Your task to perform on an android device: toggle improve location accuracy Image 0: 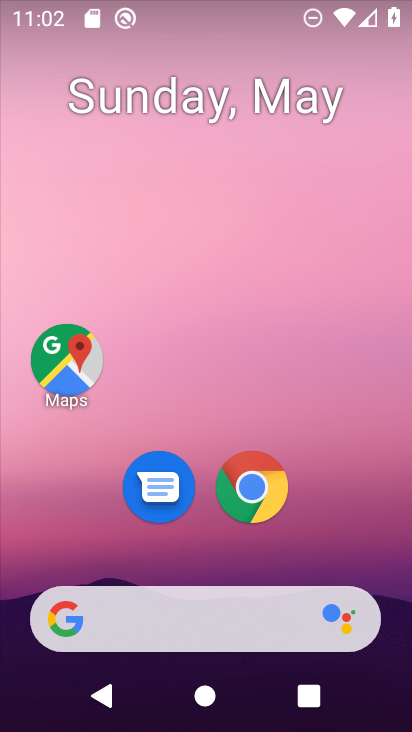
Step 0: drag from (396, 540) to (270, 55)
Your task to perform on an android device: toggle improve location accuracy Image 1: 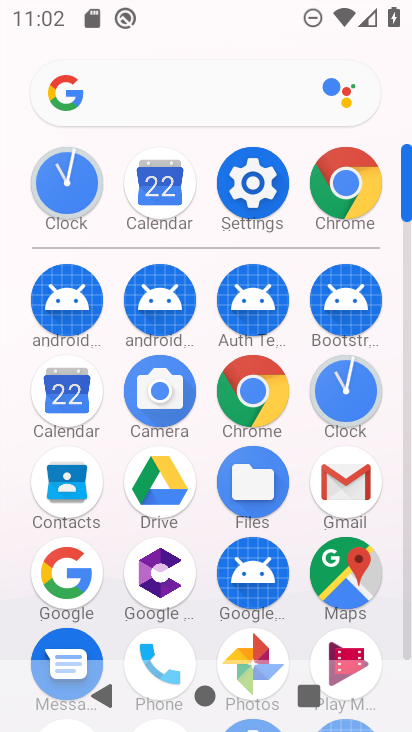
Step 1: click (406, 653)
Your task to perform on an android device: toggle improve location accuracy Image 2: 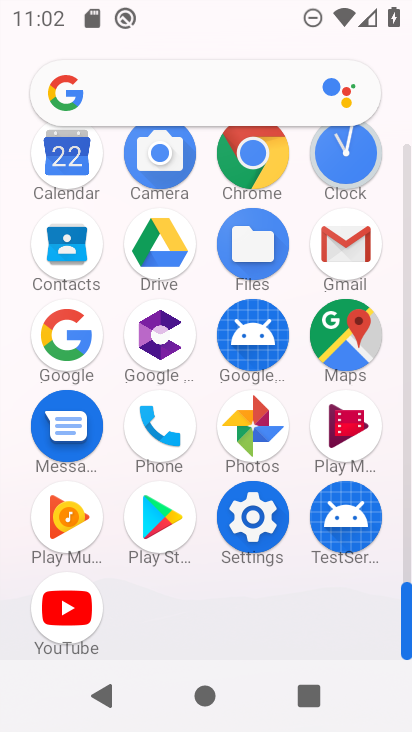
Step 2: click (263, 525)
Your task to perform on an android device: toggle improve location accuracy Image 3: 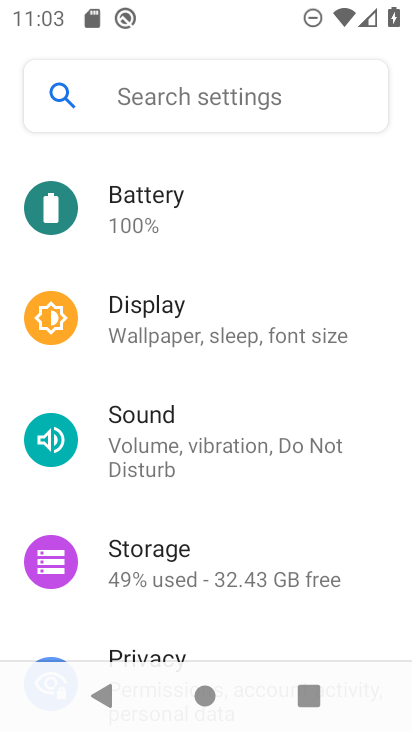
Step 3: drag from (305, 637) to (237, 174)
Your task to perform on an android device: toggle improve location accuracy Image 4: 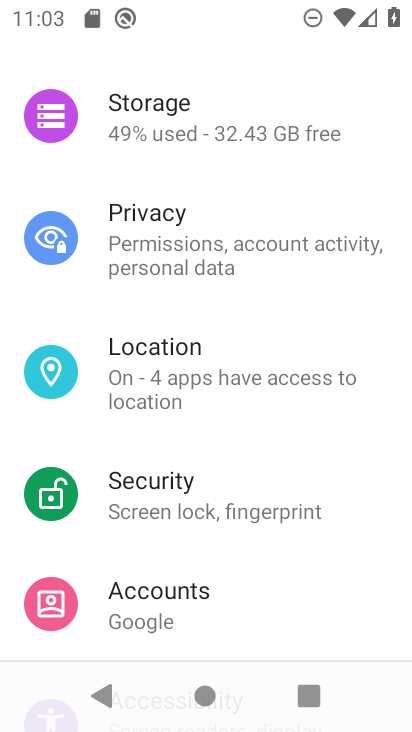
Step 4: click (267, 372)
Your task to perform on an android device: toggle improve location accuracy Image 5: 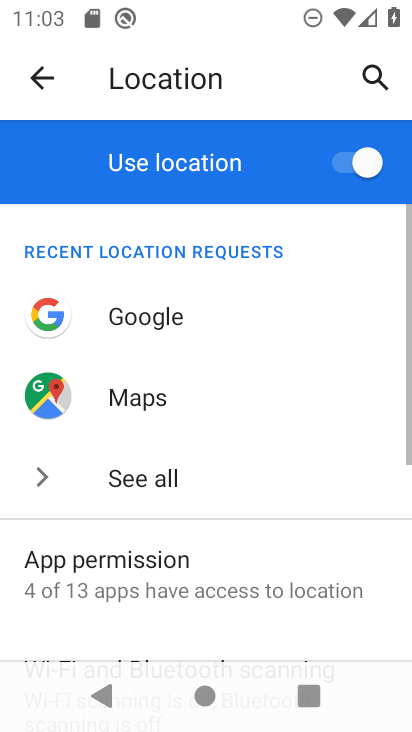
Step 5: drag from (306, 590) to (288, 200)
Your task to perform on an android device: toggle improve location accuracy Image 6: 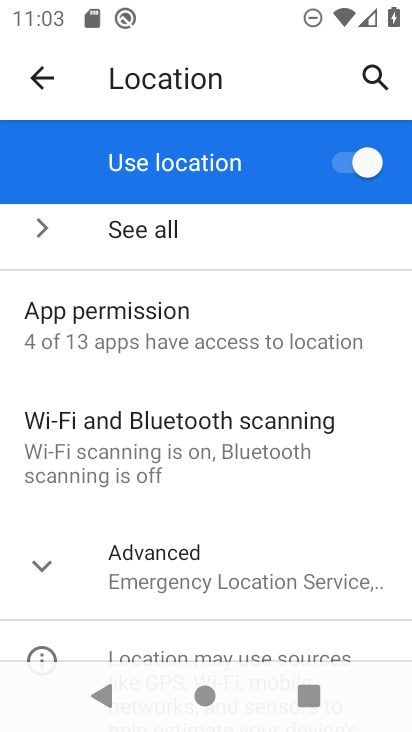
Step 6: click (306, 567)
Your task to perform on an android device: toggle improve location accuracy Image 7: 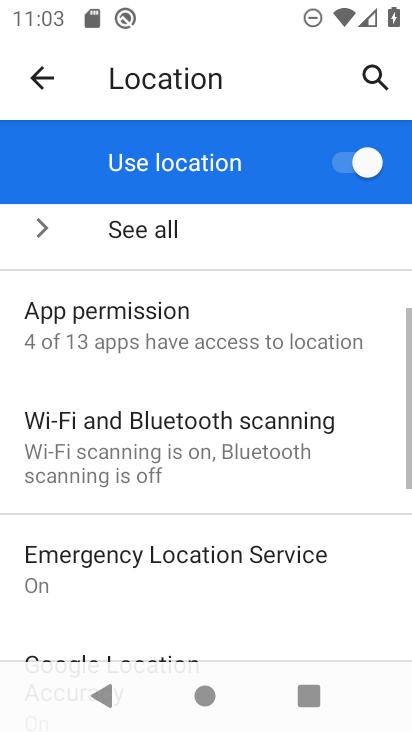
Step 7: drag from (306, 567) to (237, 185)
Your task to perform on an android device: toggle improve location accuracy Image 8: 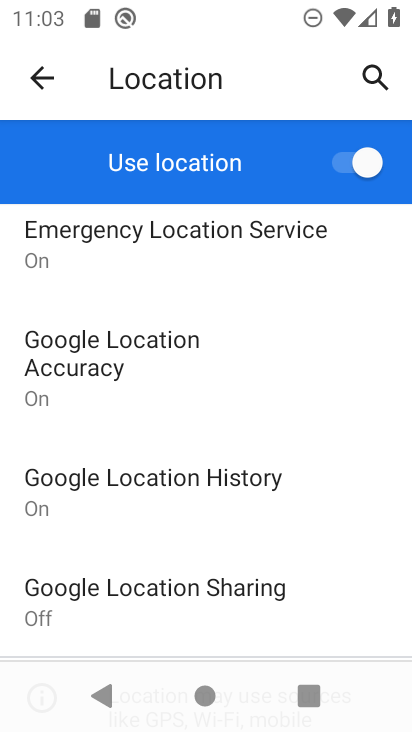
Step 8: click (226, 402)
Your task to perform on an android device: toggle improve location accuracy Image 9: 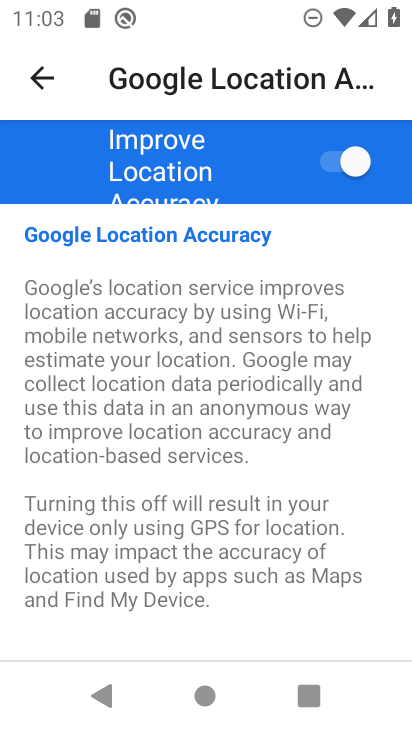
Step 9: click (333, 167)
Your task to perform on an android device: toggle improve location accuracy Image 10: 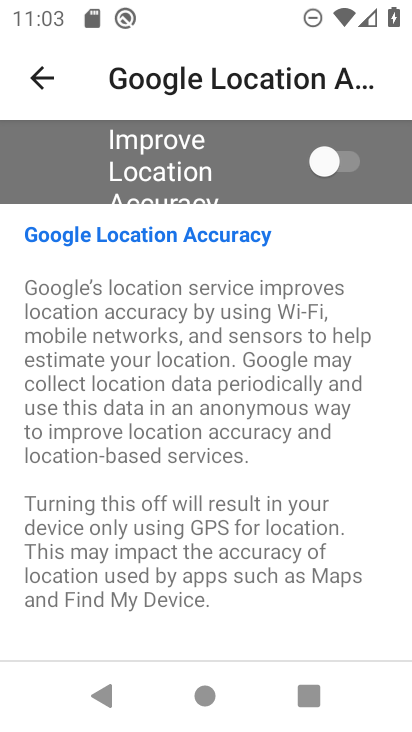
Step 10: task complete